Your task to perform on an android device: Search for Mexican restaurants on Maps Image 0: 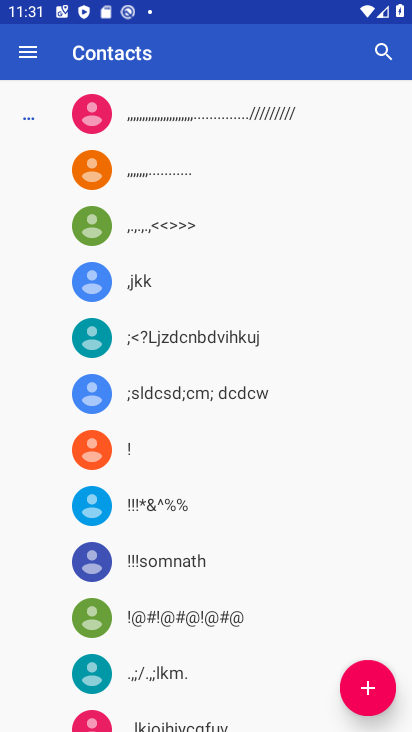
Step 0: press home button
Your task to perform on an android device: Search for Mexican restaurants on Maps Image 1: 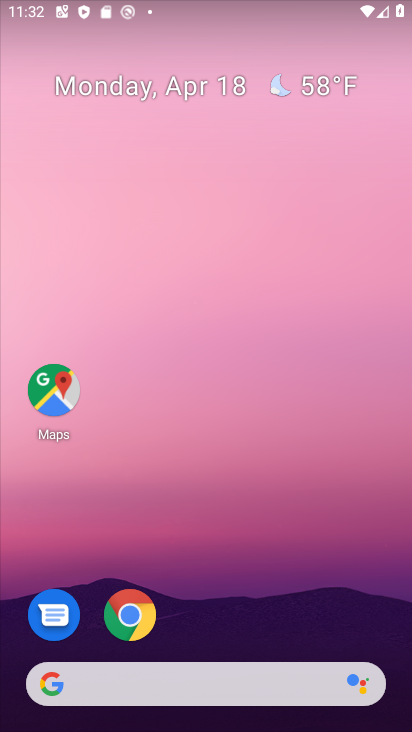
Step 1: drag from (309, 558) to (310, 92)
Your task to perform on an android device: Search for Mexican restaurants on Maps Image 2: 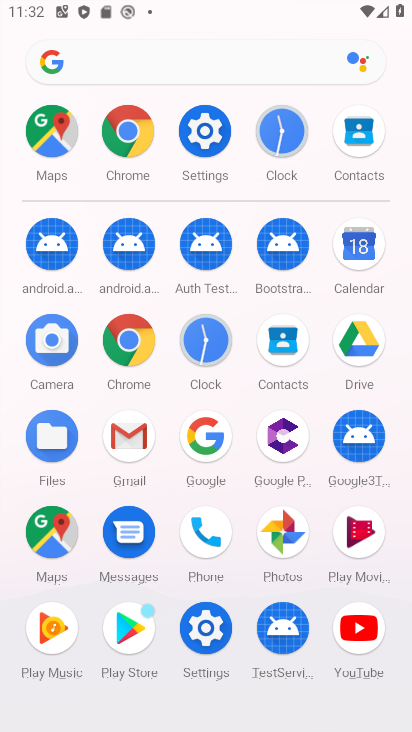
Step 2: click (56, 541)
Your task to perform on an android device: Search for Mexican restaurants on Maps Image 3: 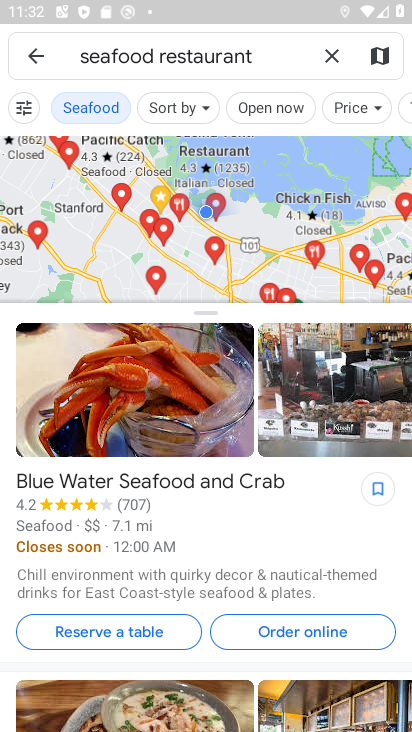
Step 3: click (257, 57)
Your task to perform on an android device: Search for Mexican restaurants on Maps Image 4: 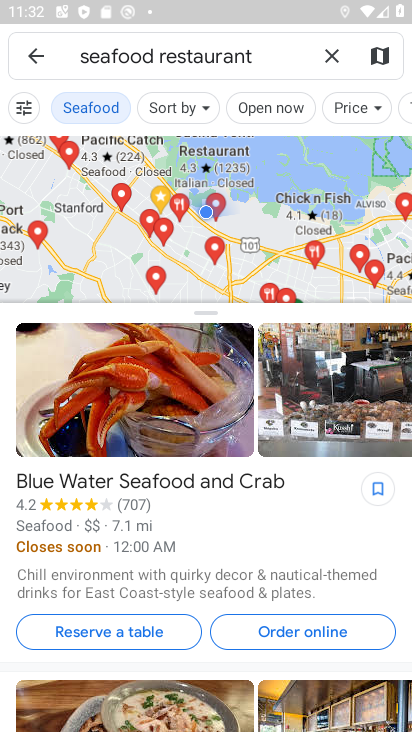
Step 4: click (333, 48)
Your task to perform on an android device: Search for Mexican restaurants on Maps Image 5: 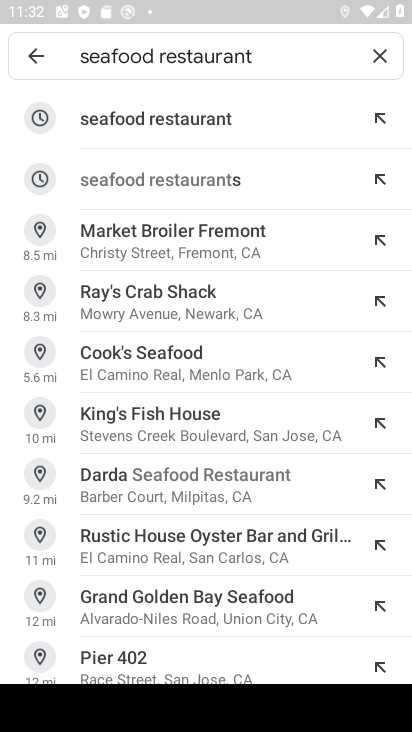
Step 5: click (391, 60)
Your task to perform on an android device: Search for Mexican restaurants on Maps Image 6: 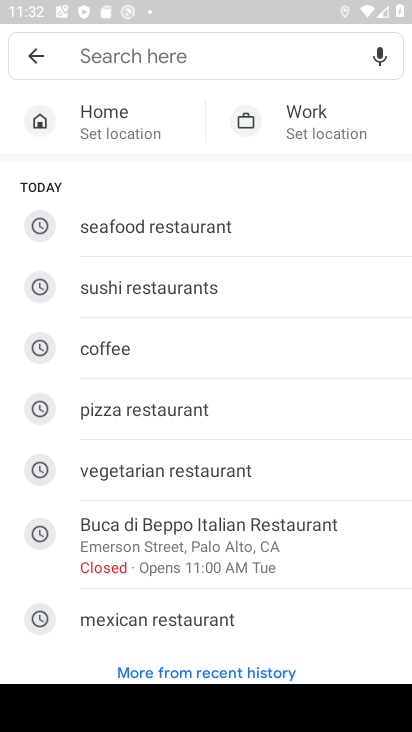
Step 6: type "mexcian"
Your task to perform on an android device: Search for Mexican restaurants on Maps Image 7: 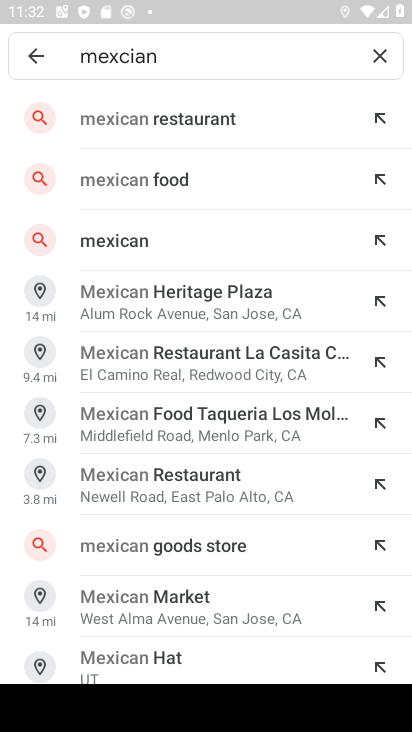
Step 7: click (142, 120)
Your task to perform on an android device: Search for Mexican restaurants on Maps Image 8: 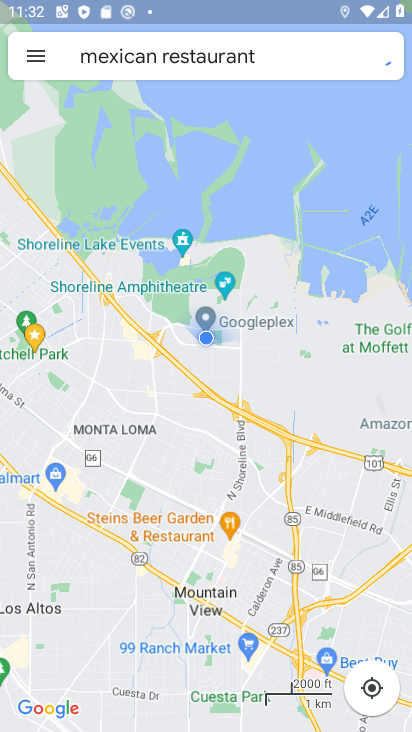
Step 8: click (202, 110)
Your task to perform on an android device: Search for Mexican restaurants on Maps Image 9: 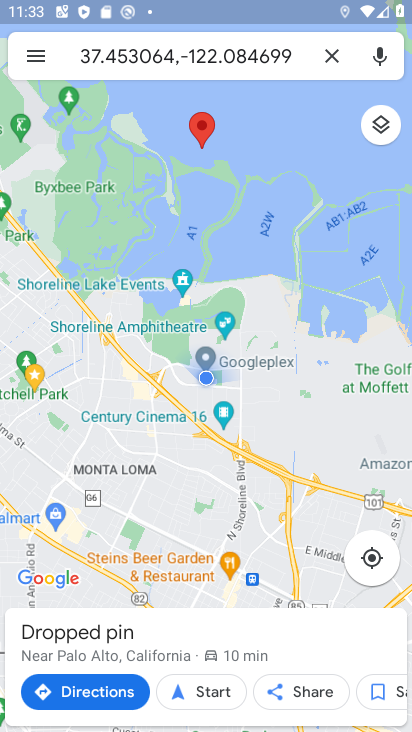
Step 9: task complete